Your task to perform on an android device: turn on data saver in the chrome app Image 0: 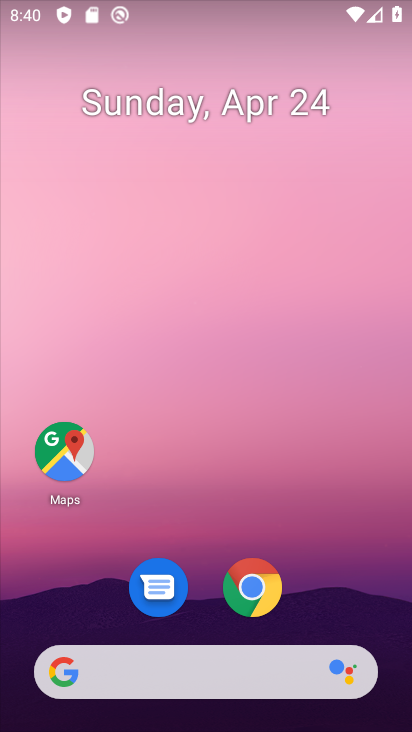
Step 0: click (247, 583)
Your task to perform on an android device: turn on data saver in the chrome app Image 1: 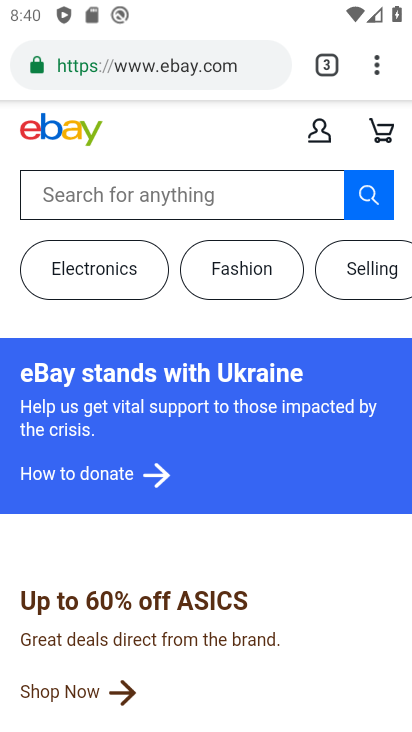
Step 1: drag from (375, 55) to (148, 630)
Your task to perform on an android device: turn on data saver in the chrome app Image 2: 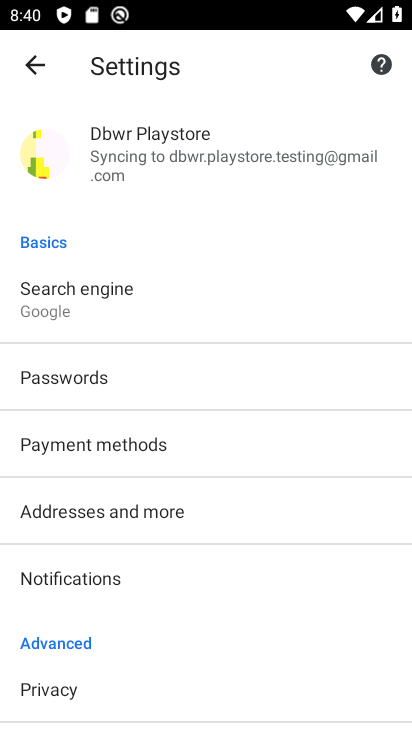
Step 2: drag from (143, 688) to (232, 208)
Your task to perform on an android device: turn on data saver in the chrome app Image 3: 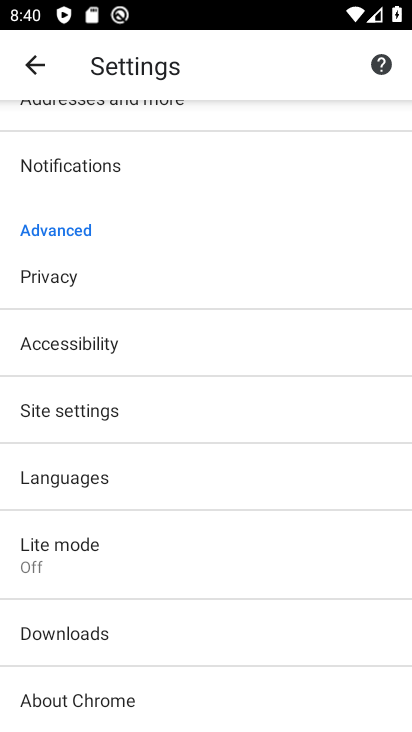
Step 3: click (99, 546)
Your task to perform on an android device: turn on data saver in the chrome app Image 4: 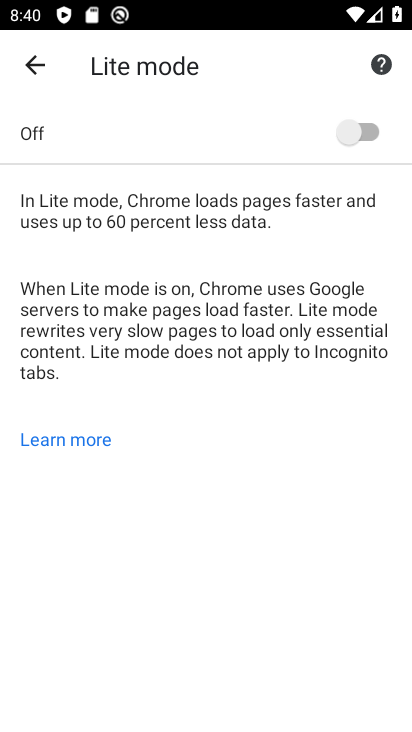
Step 4: click (359, 138)
Your task to perform on an android device: turn on data saver in the chrome app Image 5: 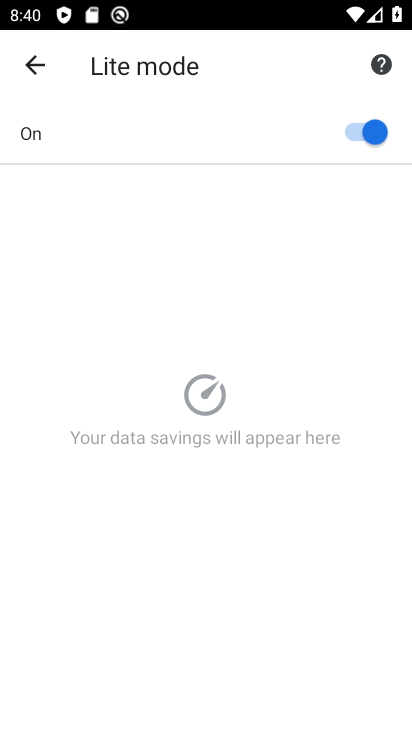
Step 5: task complete